Your task to perform on an android device: Open Wikipedia Image 0: 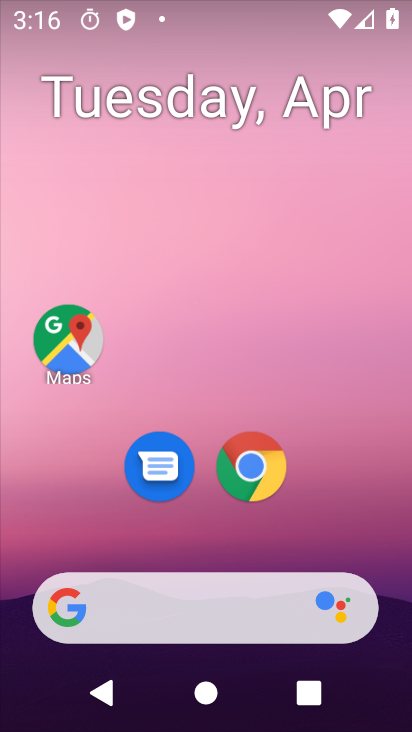
Step 0: press home button
Your task to perform on an android device: Open Wikipedia Image 1: 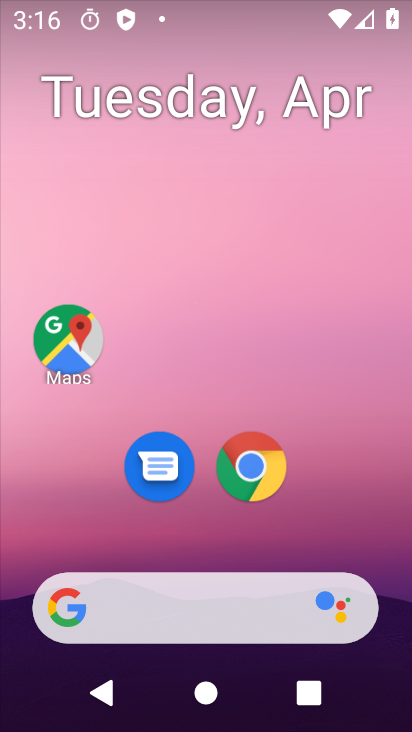
Step 1: click (250, 474)
Your task to perform on an android device: Open Wikipedia Image 2: 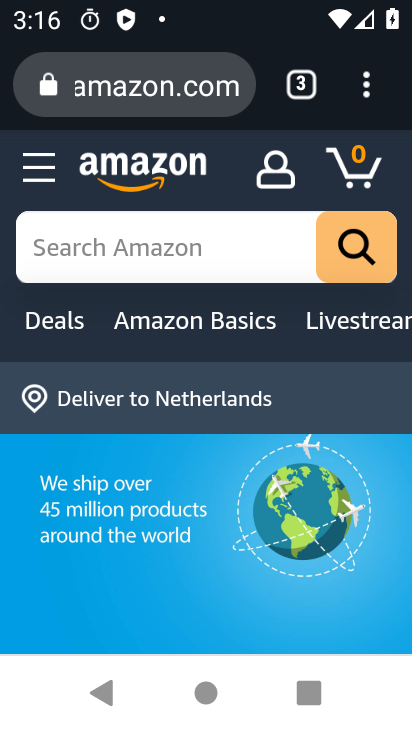
Step 2: click (302, 98)
Your task to perform on an android device: Open Wikipedia Image 3: 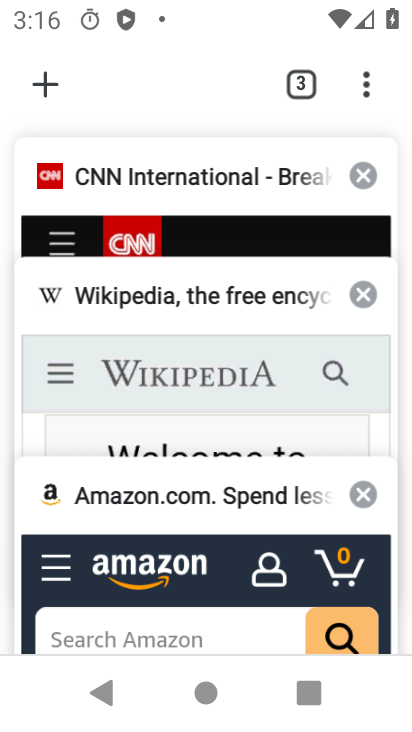
Step 3: click (42, 77)
Your task to perform on an android device: Open Wikipedia Image 4: 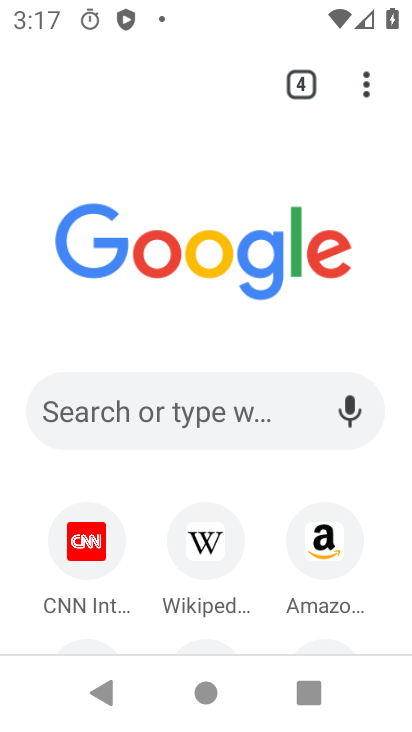
Step 4: click (221, 537)
Your task to perform on an android device: Open Wikipedia Image 5: 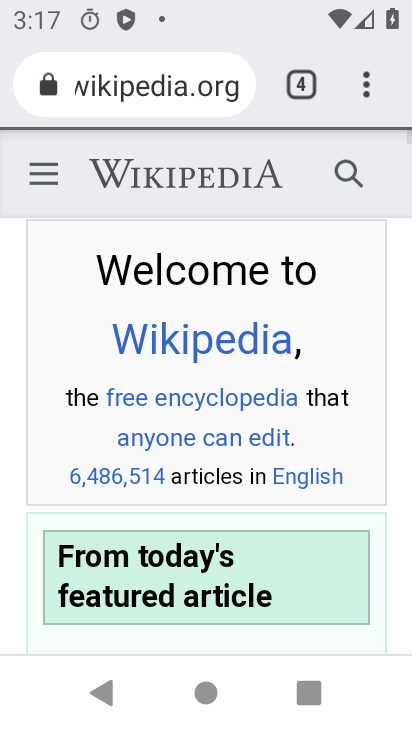
Step 5: task complete